Your task to perform on an android device: How much does a 2 bedroom apartment rent for in Boston? Image 0: 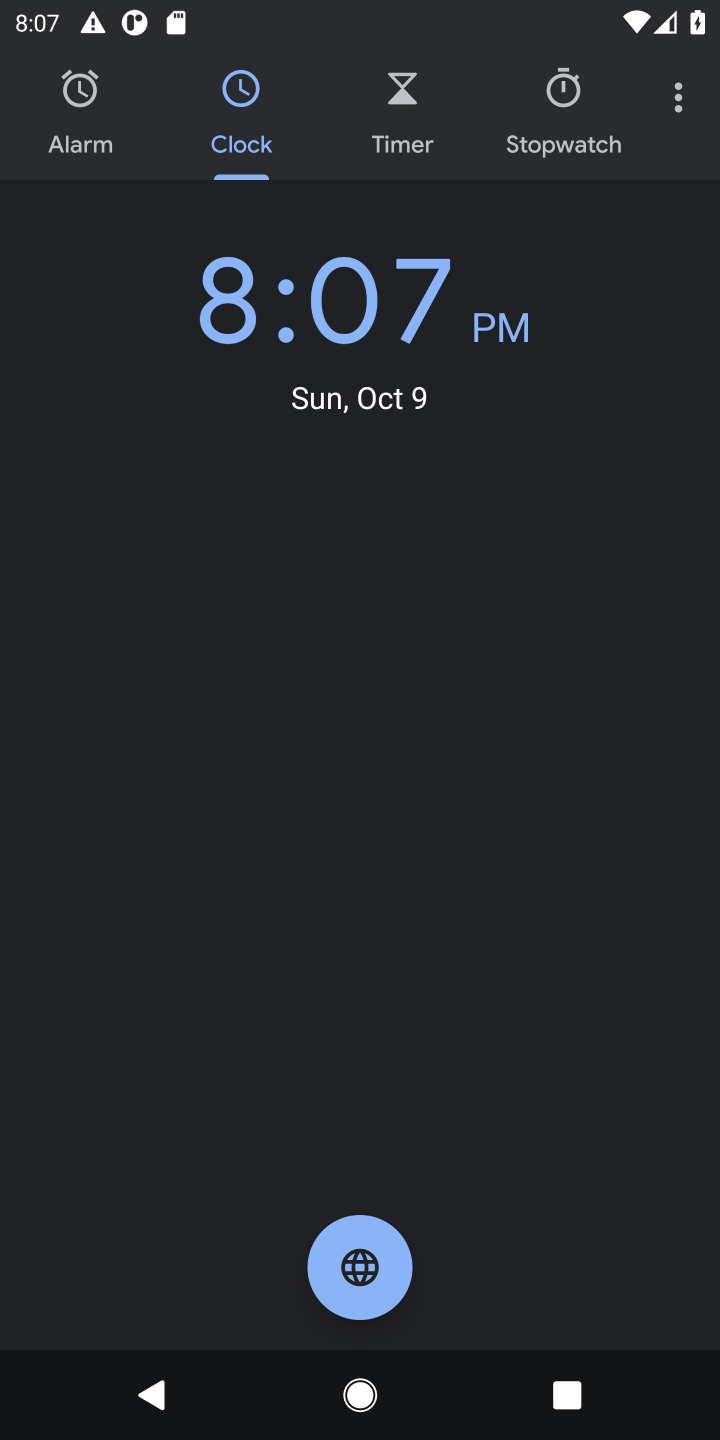
Step 0: press home button
Your task to perform on an android device: How much does a 2 bedroom apartment rent for in Boston? Image 1: 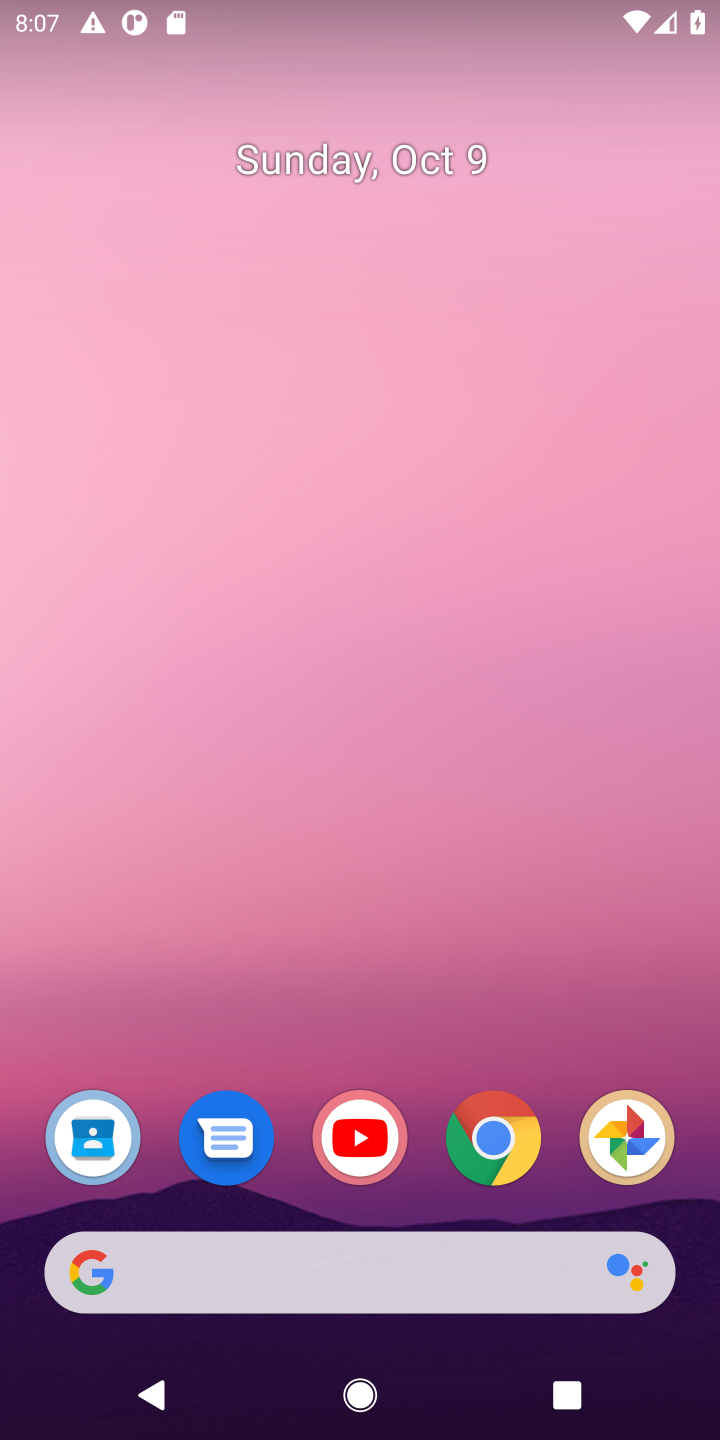
Step 1: drag from (401, 1194) to (449, 409)
Your task to perform on an android device: How much does a 2 bedroom apartment rent for in Boston? Image 2: 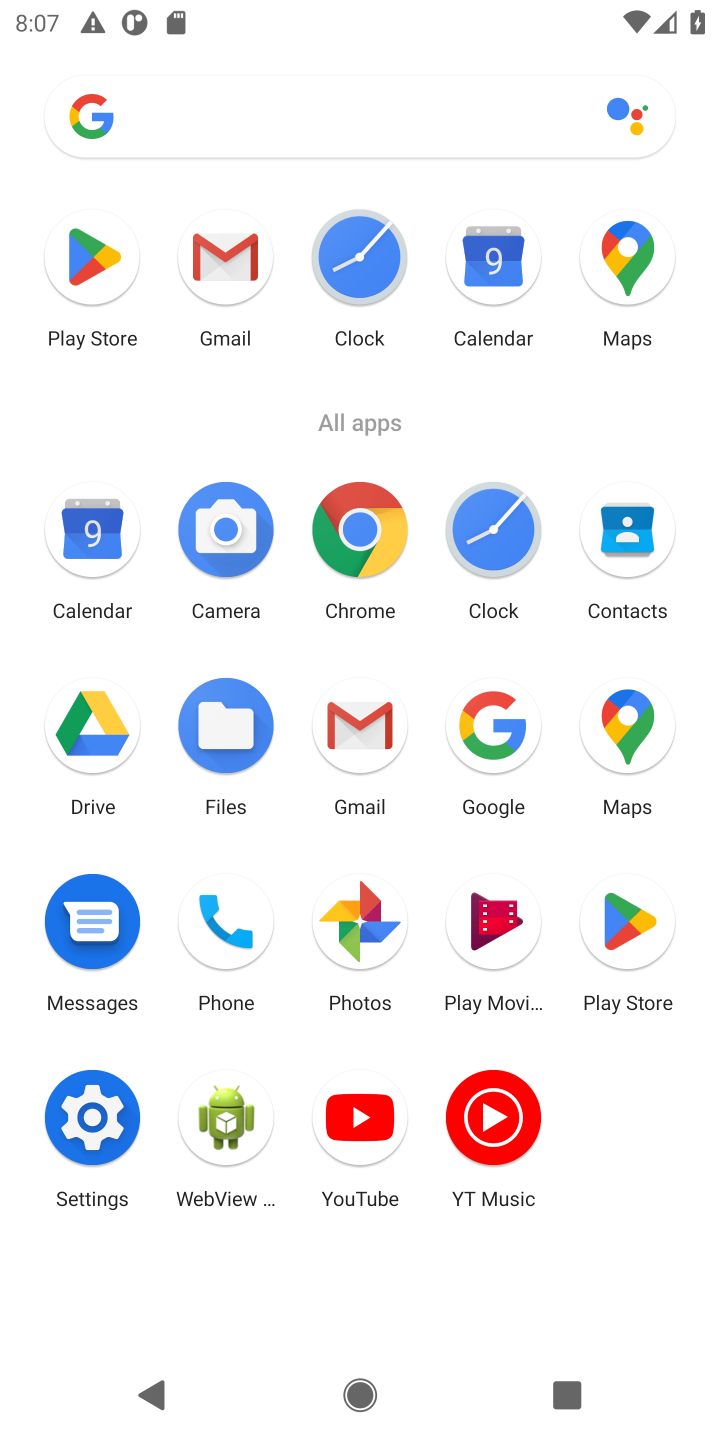
Step 2: click (494, 702)
Your task to perform on an android device: How much does a 2 bedroom apartment rent for in Boston? Image 3: 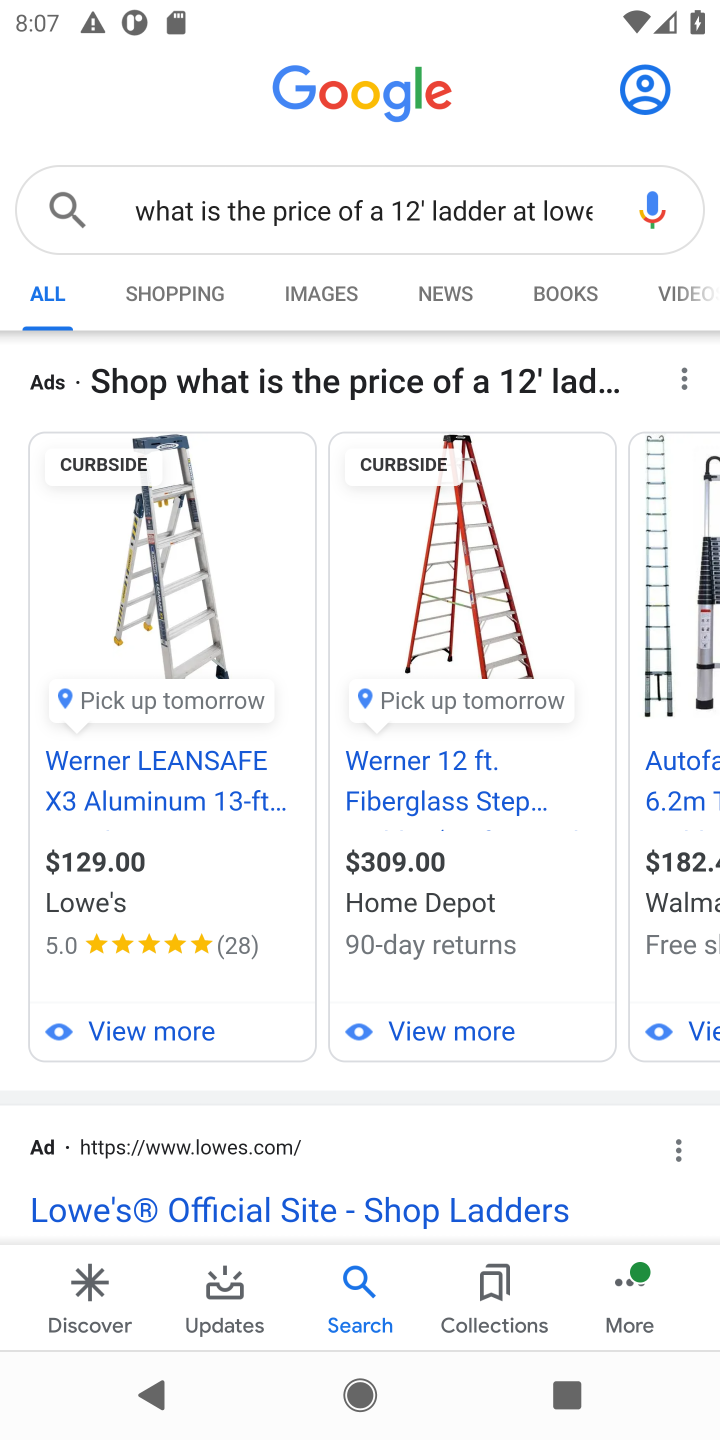
Step 3: click (426, 199)
Your task to perform on an android device: How much does a 2 bedroom apartment rent for in Boston? Image 4: 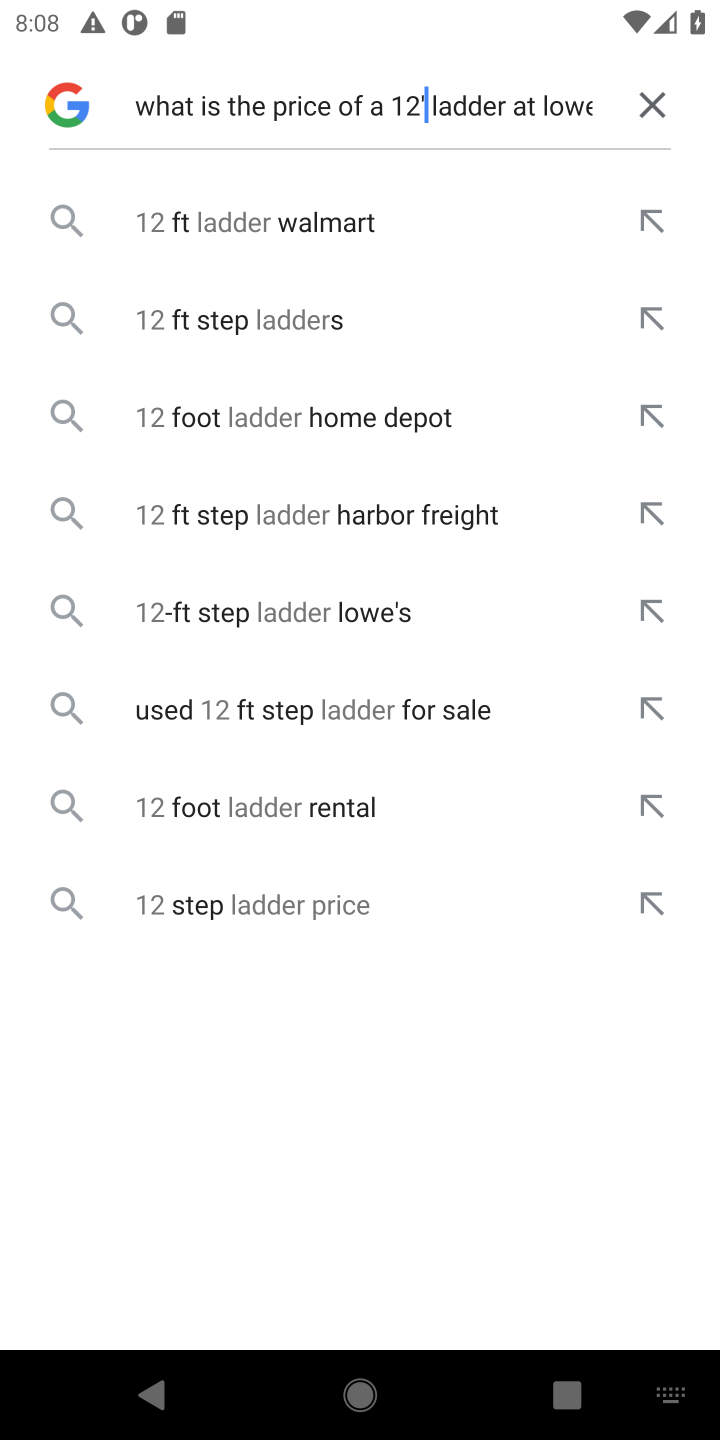
Step 4: click (638, 106)
Your task to perform on an android device: How much does a 2 bedroom apartment rent for in Boston? Image 5: 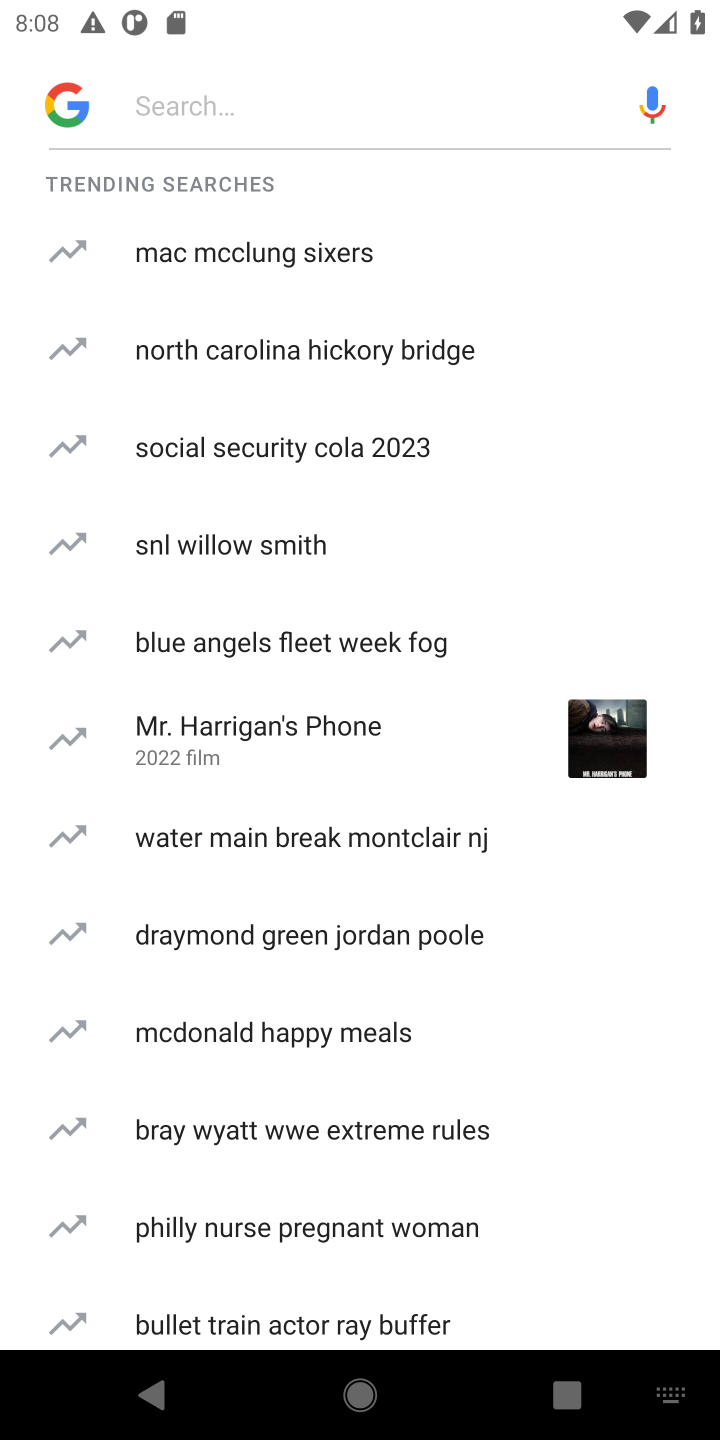
Step 5: click (226, 81)
Your task to perform on an android device: How much does a 2 bedroom apartment rent for in Boston? Image 6: 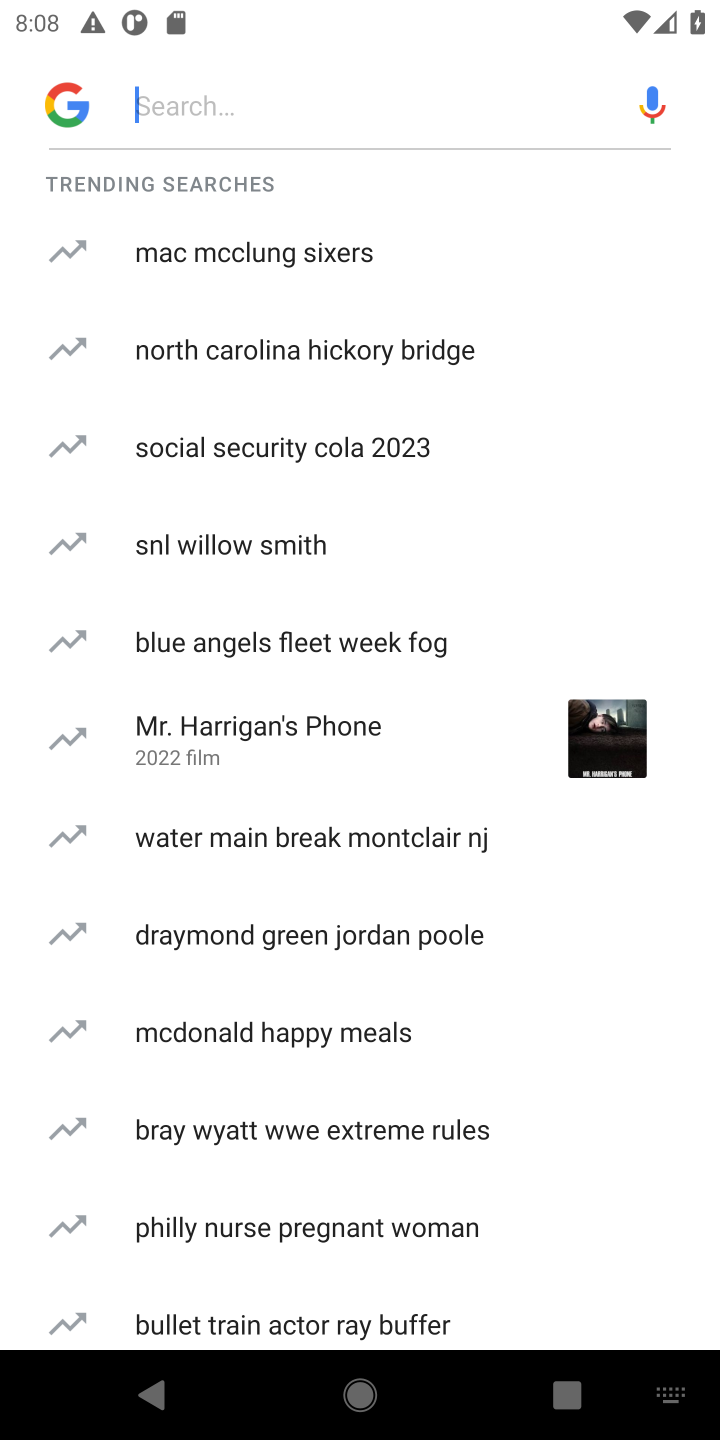
Step 6: type "How much does a 2 bedroom apartment rent for in Boston? "
Your task to perform on an android device: How much does a 2 bedroom apartment rent for in Boston? Image 7: 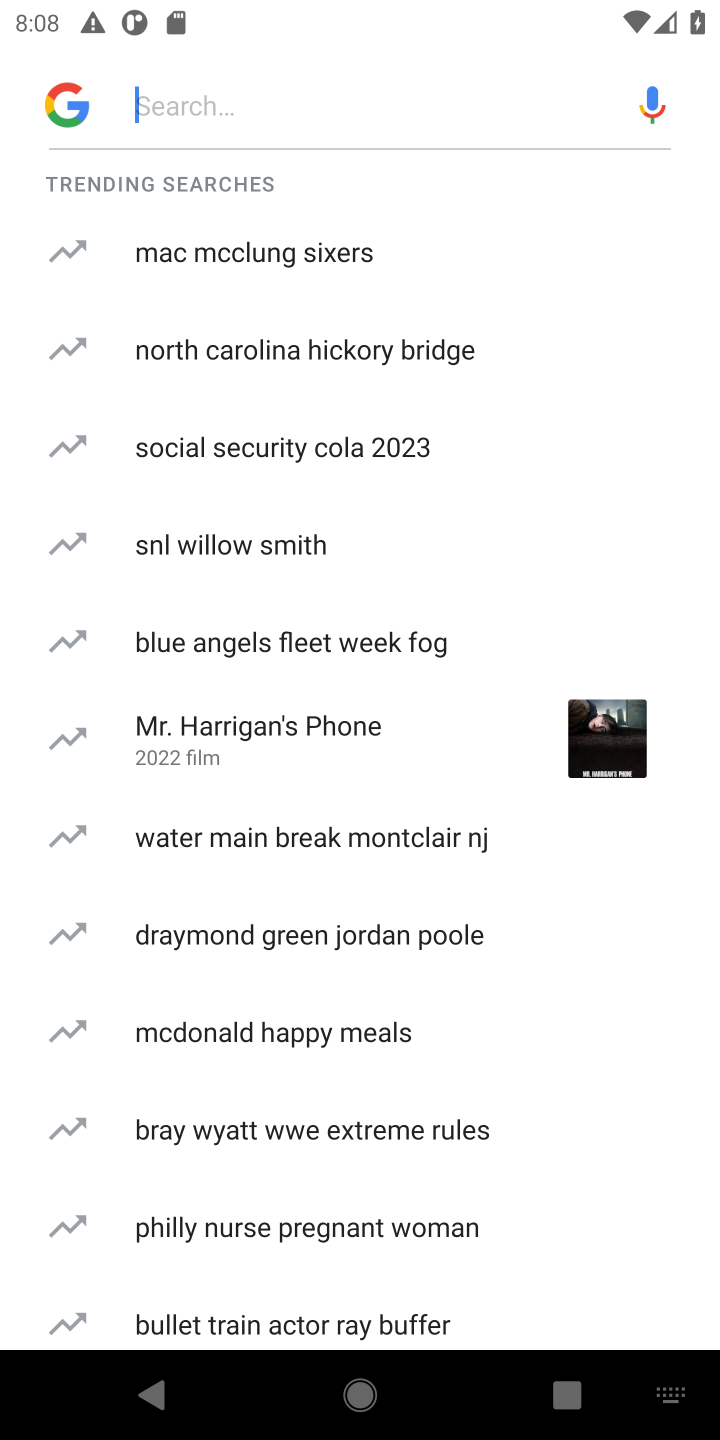
Step 7: click (333, 82)
Your task to perform on an android device: How much does a 2 bedroom apartment rent for in Boston? Image 8: 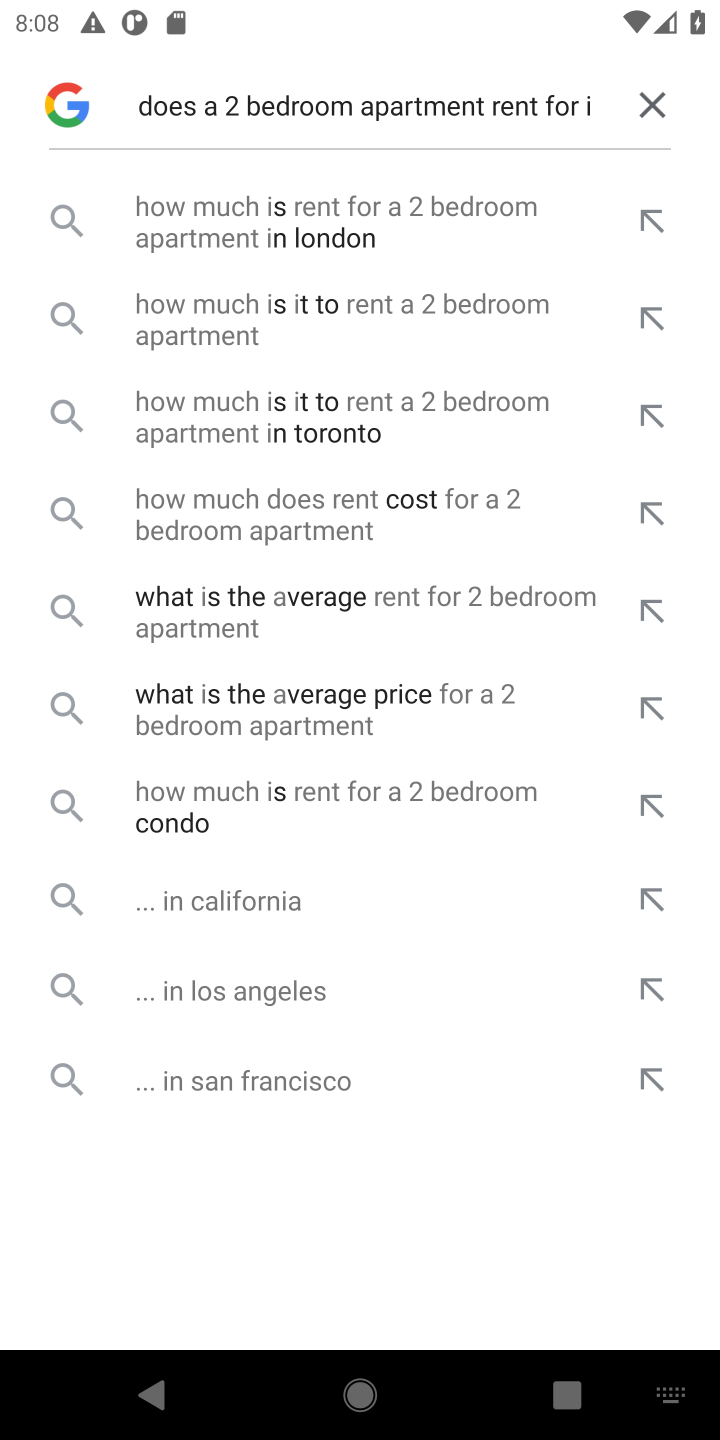
Step 8: click (236, 221)
Your task to perform on an android device: How much does a 2 bedroom apartment rent for in Boston? Image 9: 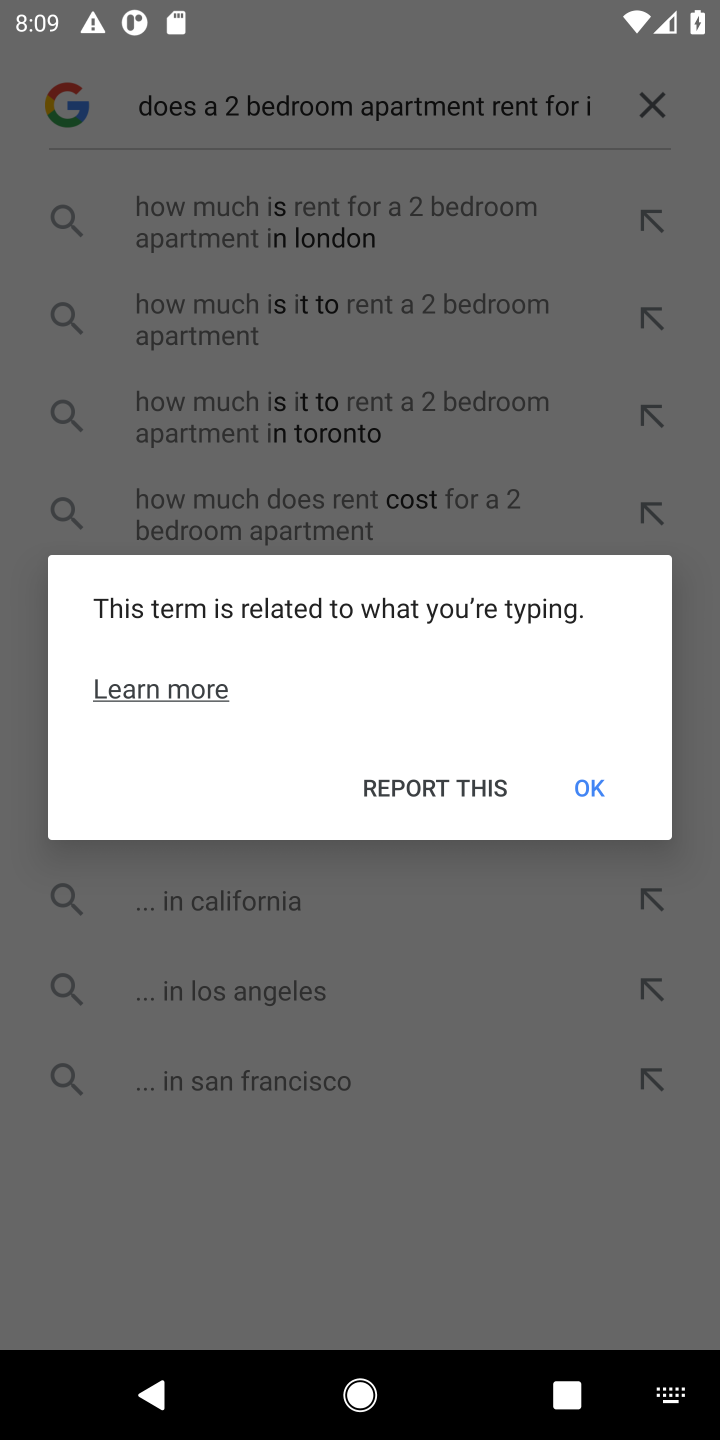
Step 9: click (565, 794)
Your task to perform on an android device: How much does a 2 bedroom apartment rent for in Boston? Image 10: 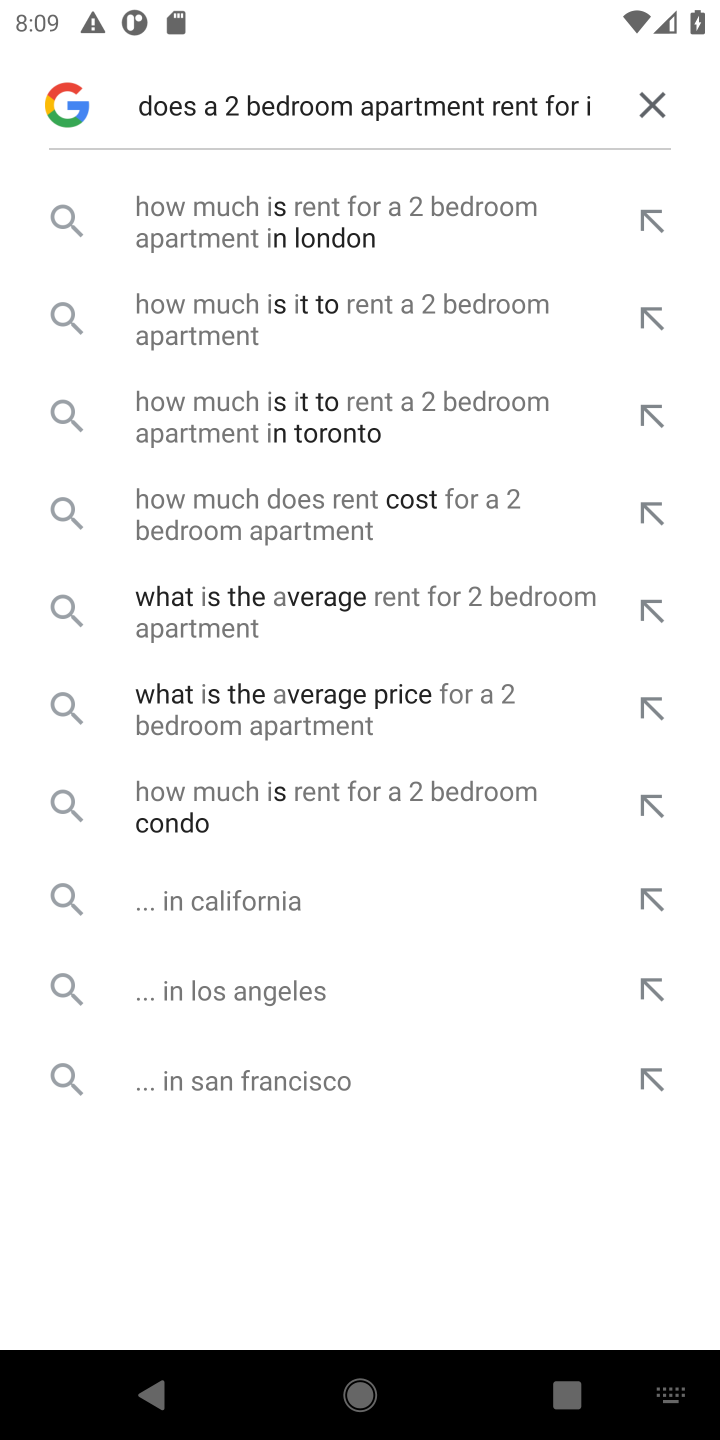
Step 10: click (317, 223)
Your task to perform on an android device: How much does a 2 bedroom apartment rent for in Boston? Image 11: 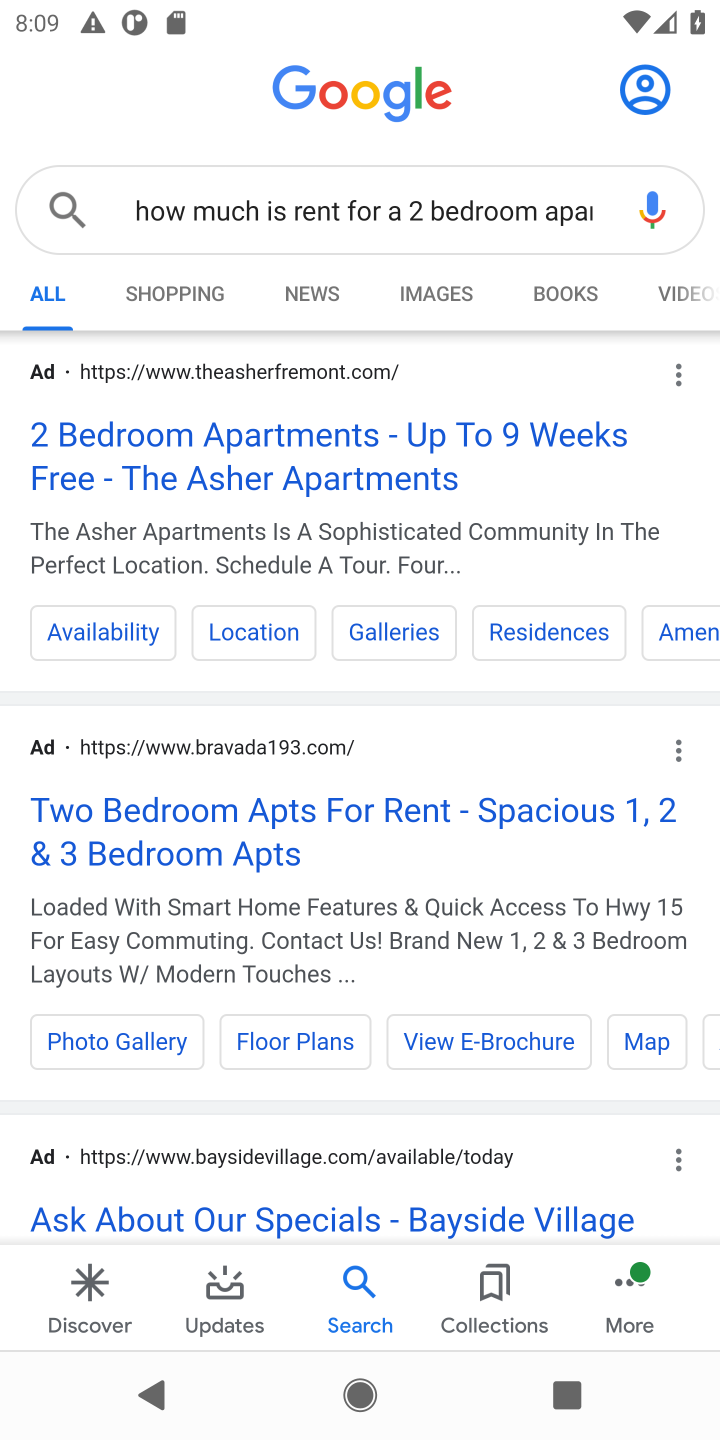
Step 11: drag from (395, 1052) to (418, 605)
Your task to perform on an android device: How much does a 2 bedroom apartment rent for in Boston? Image 12: 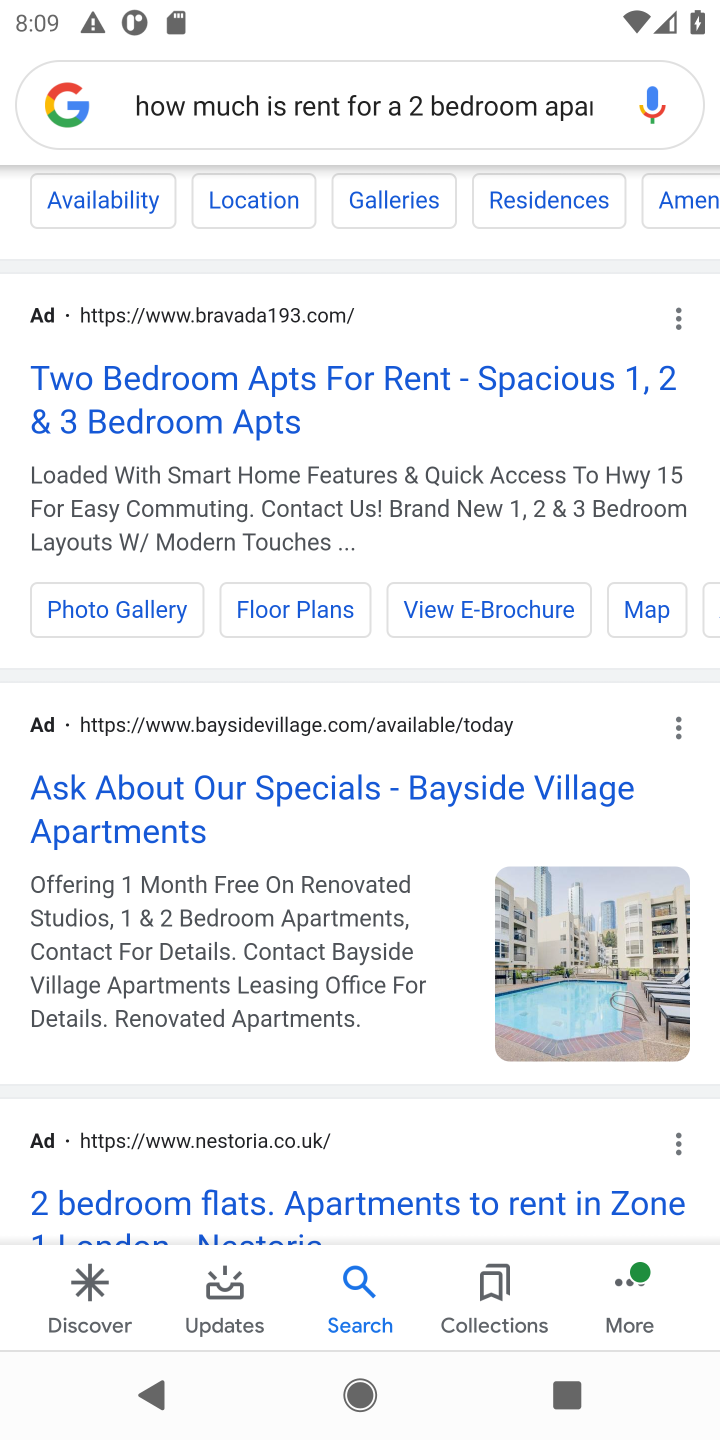
Step 12: drag from (177, 397) to (190, 921)
Your task to perform on an android device: How much does a 2 bedroom apartment rent for in Boston? Image 13: 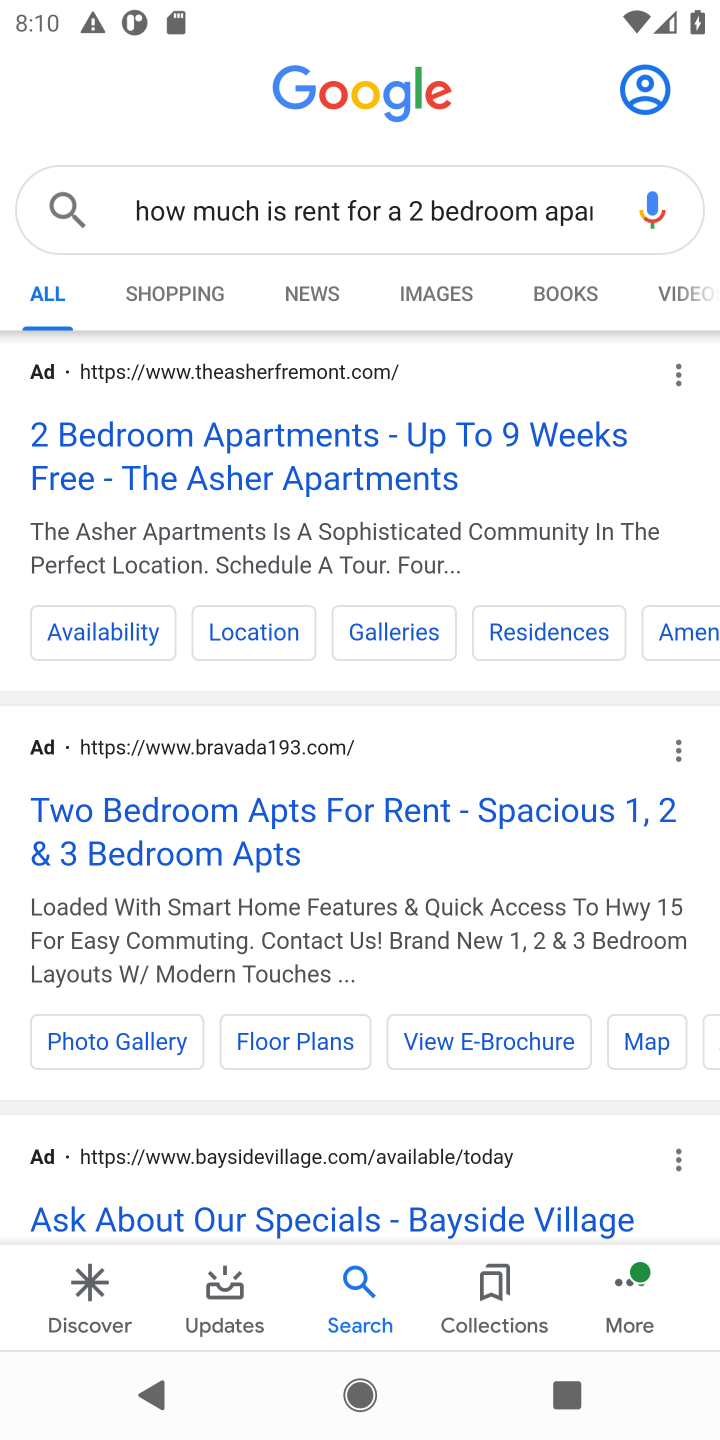
Step 13: click (312, 448)
Your task to perform on an android device: How much does a 2 bedroom apartment rent for in Boston? Image 14: 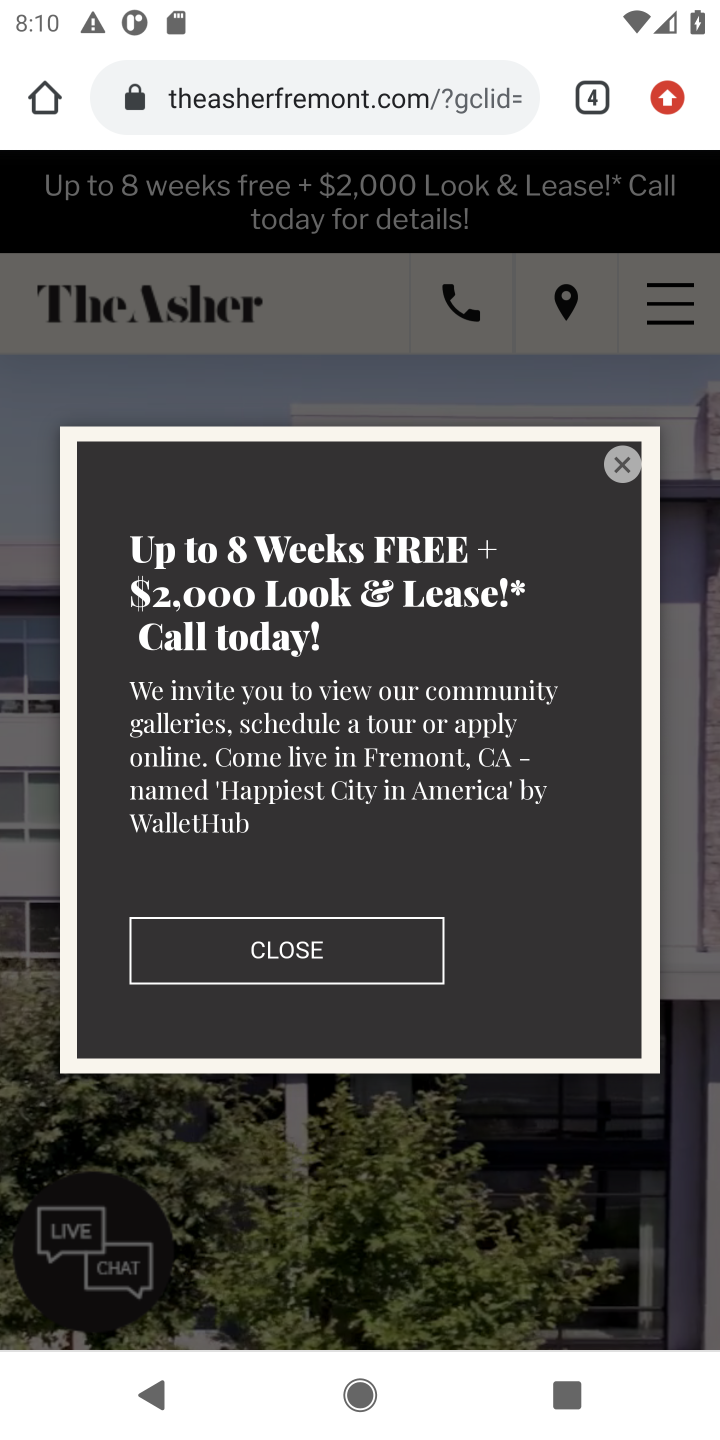
Step 14: task complete